Your task to perform on an android device: check out phone information Image 0: 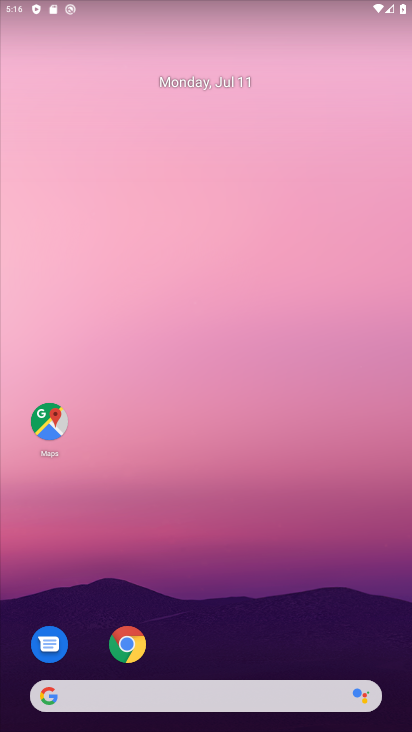
Step 0: drag from (315, 702) to (276, 11)
Your task to perform on an android device: check out phone information Image 1: 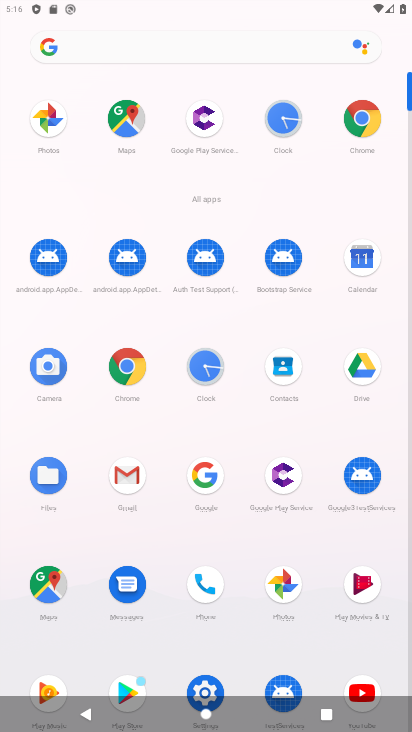
Step 1: click (196, 687)
Your task to perform on an android device: check out phone information Image 2: 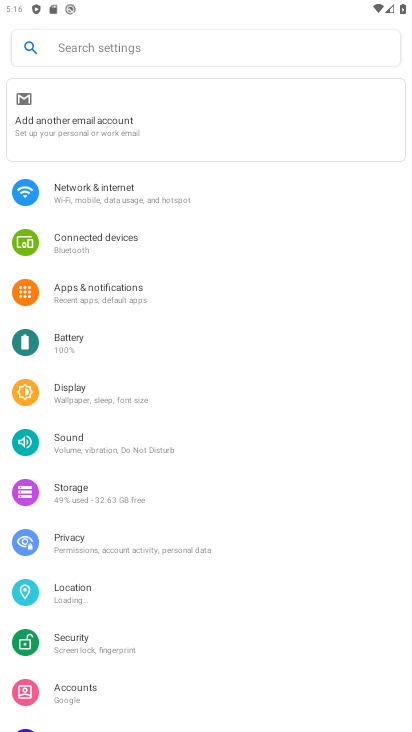
Step 2: drag from (262, 699) to (222, 113)
Your task to perform on an android device: check out phone information Image 3: 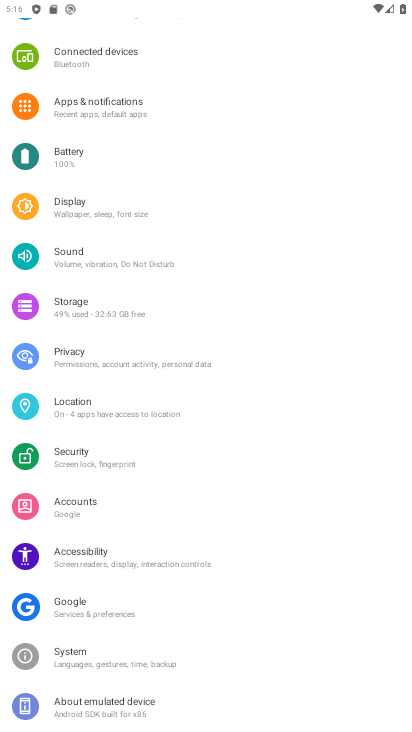
Step 3: click (125, 708)
Your task to perform on an android device: check out phone information Image 4: 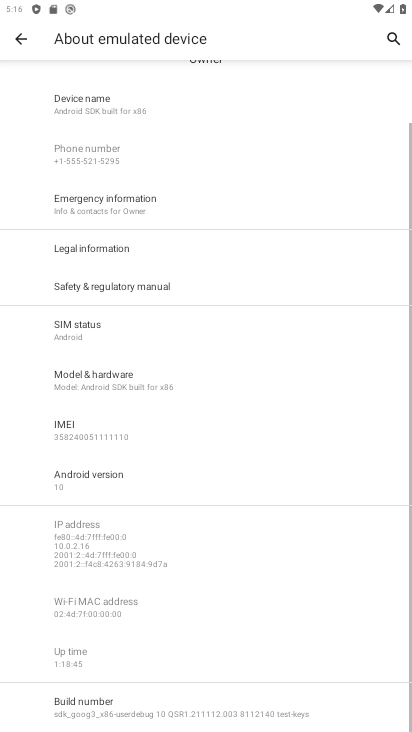
Step 4: task complete